Your task to perform on an android device: Open battery settings Image 0: 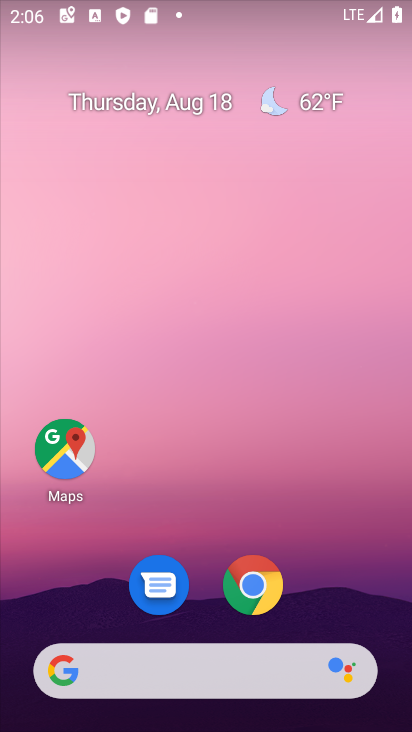
Step 0: drag from (324, 553) to (324, 0)
Your task to perform on an android device: Open battery settings Image 1: 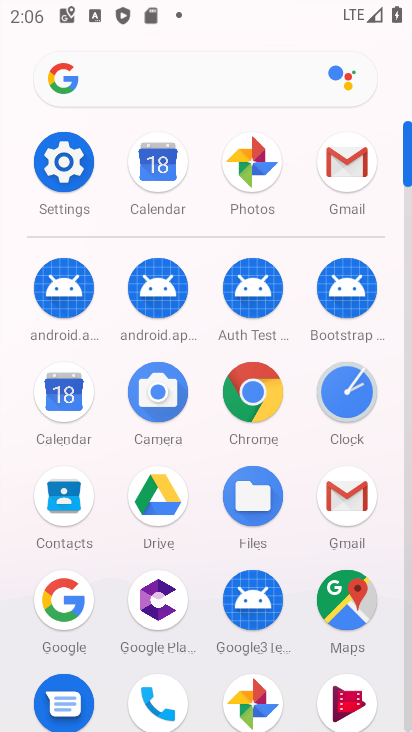
Step 1: click (48, 159)
Your task to perform on an android device: Open battery settings Image 2: 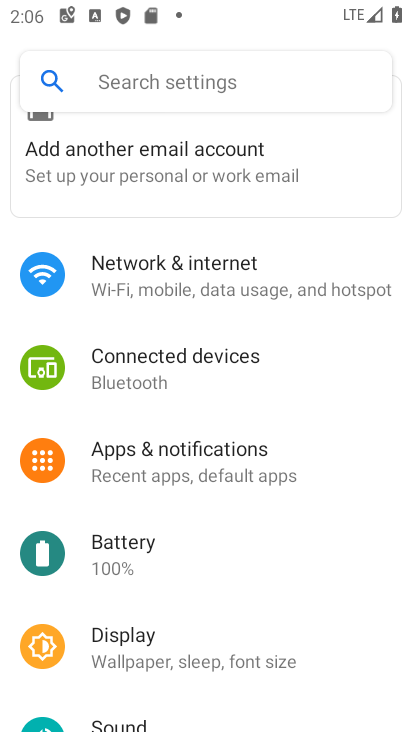
Step 2: click (156, 550)
Your task to perform on an android device: Open battery settings Image 3: 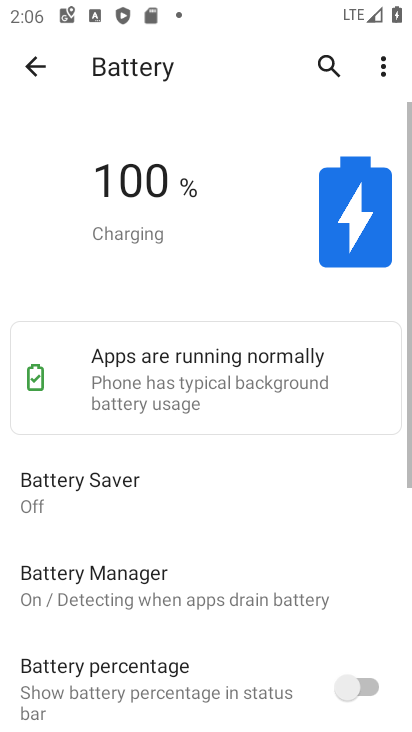
Step 3: task complete